Your task to perform on an android device: toggle translation in the chrome app Image 0: 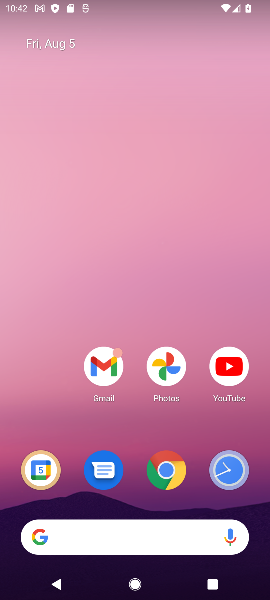
Step 0: click (170, 470)
Your task to perform on an android device: toggle translation in the chrome app Image 1: 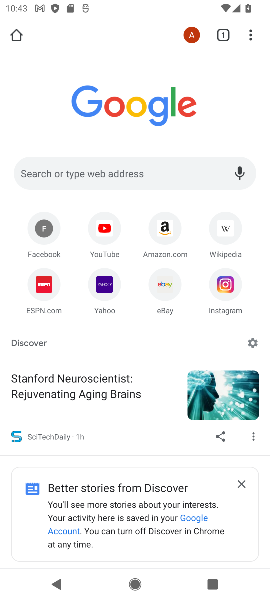
Step 1: click (248, 38)
Your task to perform on an android device: toggle translation in the chrome app Image 2: 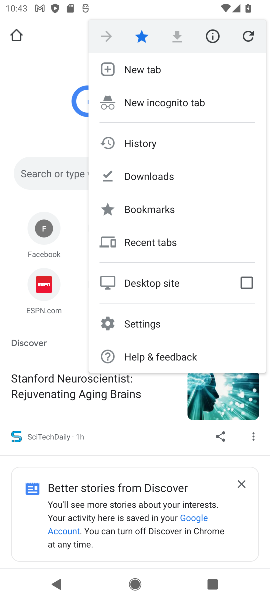
Step 2: click (132, 326)
Your task to perform on an android device: toggle translation in the chrome app Image 3: 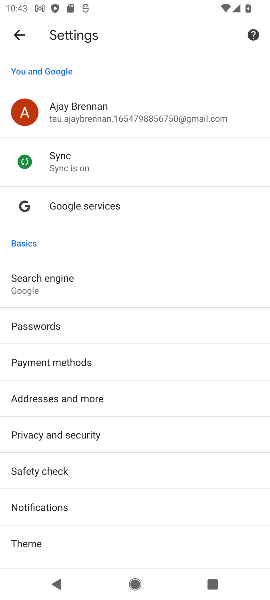
Step 3: drag from (70, 484) to (87, 223)
Your task to perform on an android device: toggle translation in the chrome app Image 4: 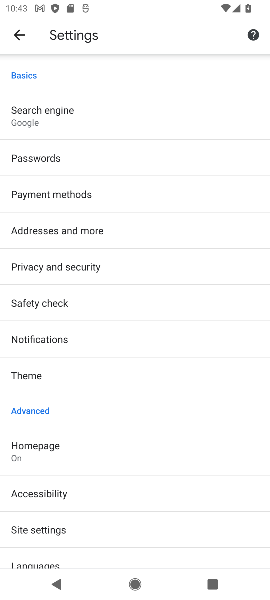
Step 4: click (47, 561)
Your task to perform on an android device: toggle translation in the chrome app Image 5: 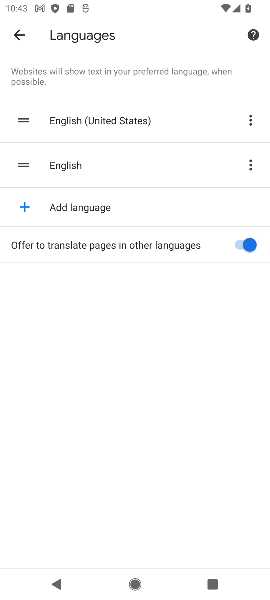
Step 5: click (237, 239)
Your task to perform on an android device: toggle translation in the chrome app Image 6: 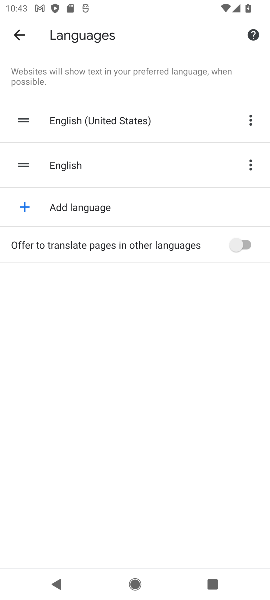
Step 6: task complete